Your task to perform on an android device: Go to privacy settings Image 0: 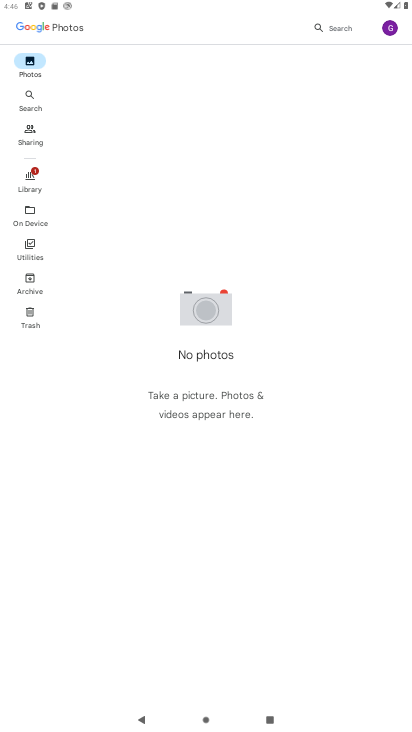
Step 0: press home button
Your task to perform on an android device: Go to privacy settings Image 1: 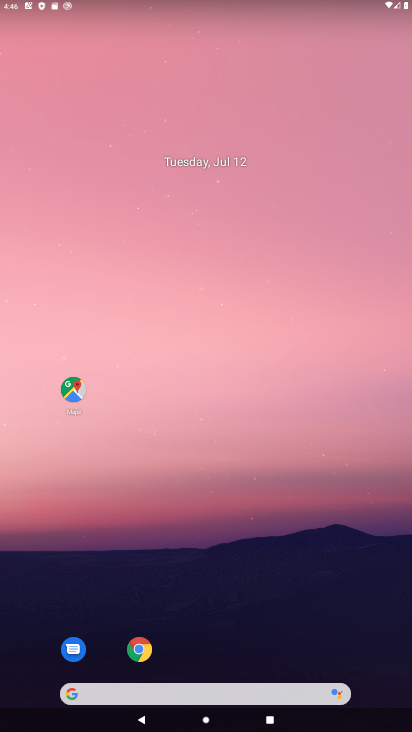
Step 1: drag from (192, 698) to (256, 3)
Your task to perform on an android device: Go to privacy settings Image 2: 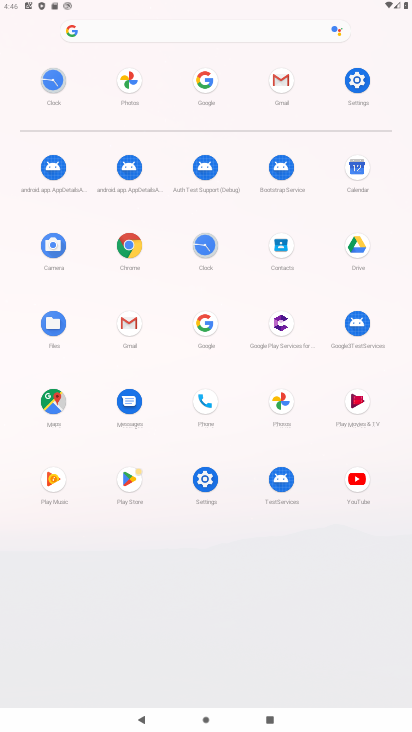
Step 2: click (203, 480)
Your task to perform on an android device: Go to privacy settings Image 3: 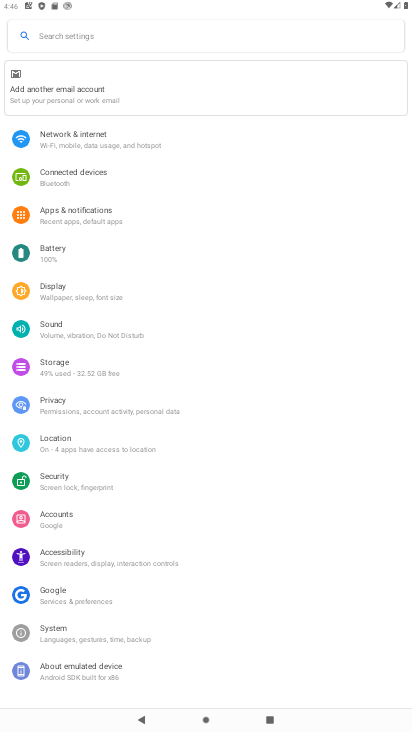
Step 3: click (55, 408)
Your task to perform on an android device: Go to privacy settings Image 4: 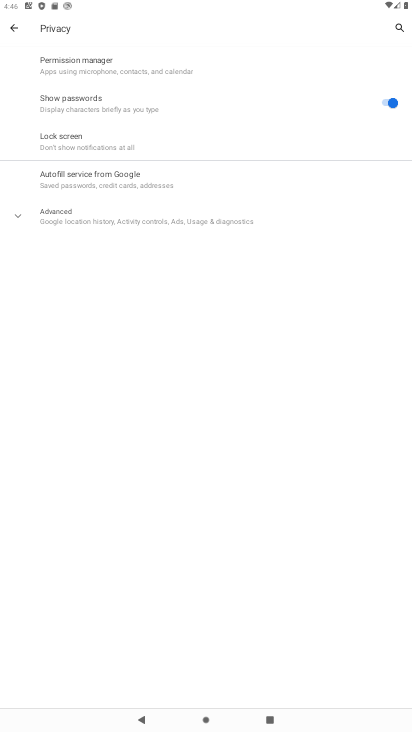
Step 4: task complete